Your task to perform on an android device: open a bookmark in the chrome app Image 0: 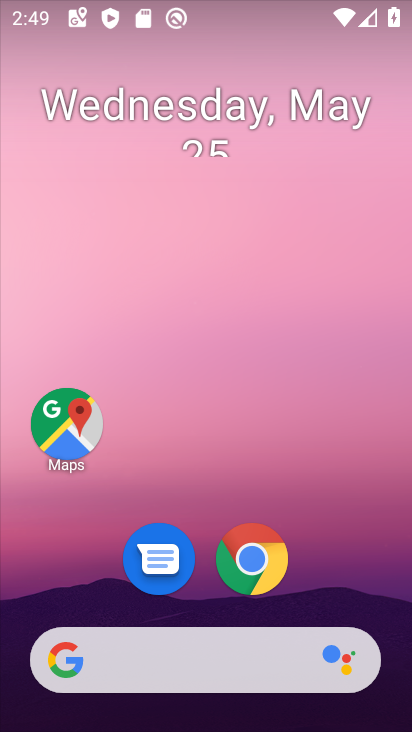
Step 0: click (248, 551)
Your task to perform on an android device: open a bookmark in the chrome app Image 1: 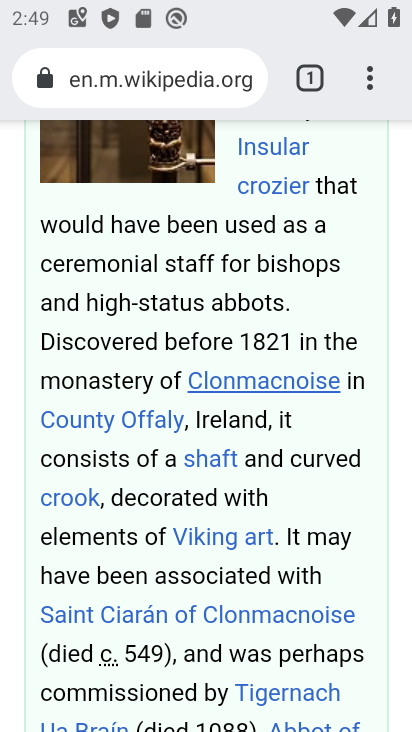
Step 1: click (367, 69)
Your task to perform on an android device: open a bookmark in the chrome app Image 2: 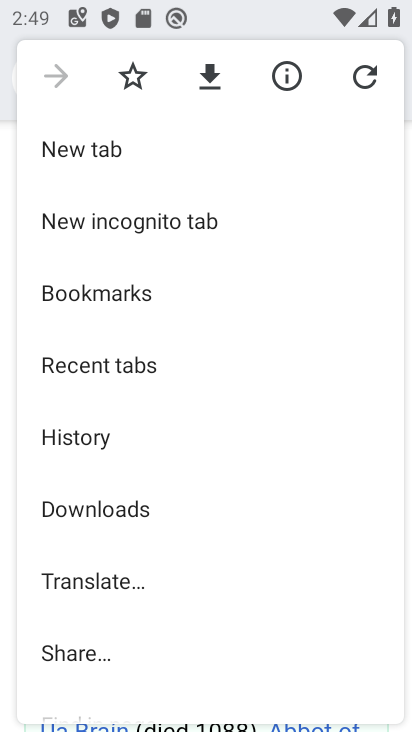
Step 2: click (160, 285)
Your task to perform on an android device: open a bookmark in the chrome app Image 3: 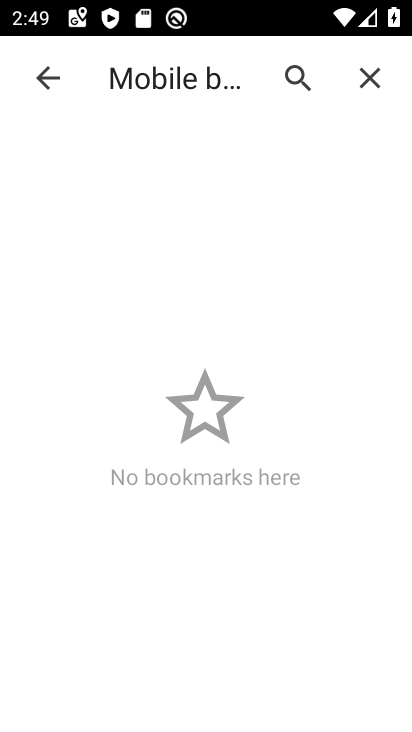
Step 3: task complete